Your task to perform on an android device: change text size in settings app Image 0: 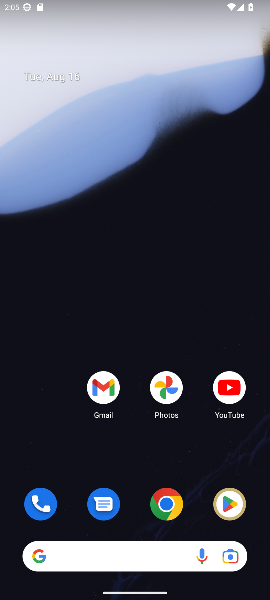
Step 0: drag from (131, 469) to (157, 14)
Your task to perform on an android device: change text size in settings app Image 1: 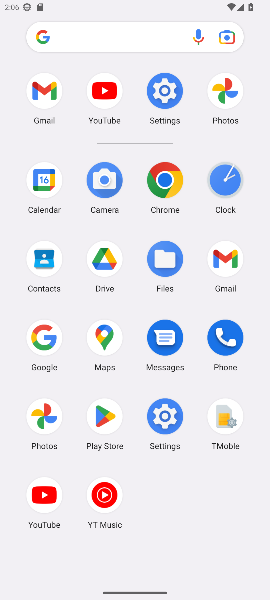
Step 1: click (164, 90)
Your task to perform on an android device: change text size in settings app Image 2: 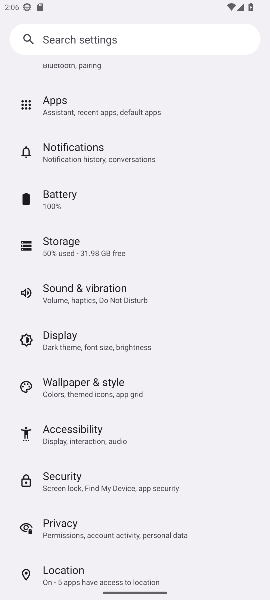
Step 2: click (51, 332)
Your task to perform on an android device: change text size in settings app Image 3: 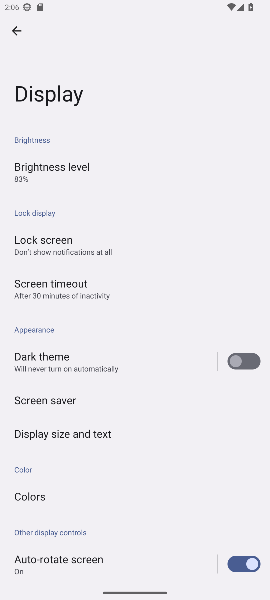
Step 3: drag from (133, 458) to (116, 314)
Your task to perform on an android device: change text size in settings app Image 4: 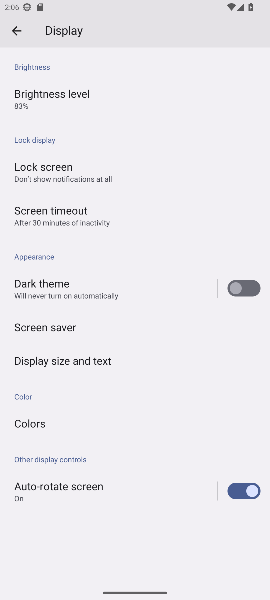
Step 4: click (64, 361)
Your task to perform on an android device: change text size in settings app Image 5: 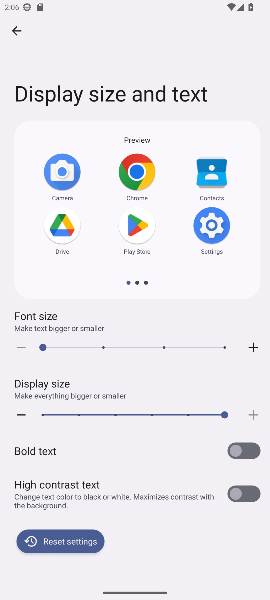
Step 5: click (82, 347)
Your task to perform on an android device: change text size in settings app Image 6: 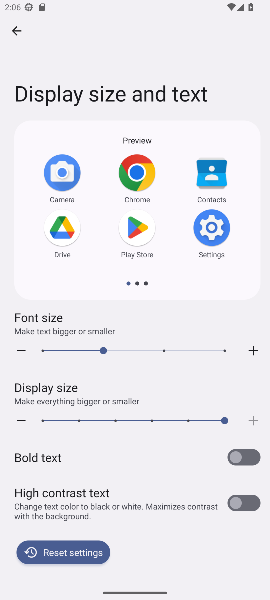
Step 6: task complete